Your task to perform on an android device: Open location settings Image 0: 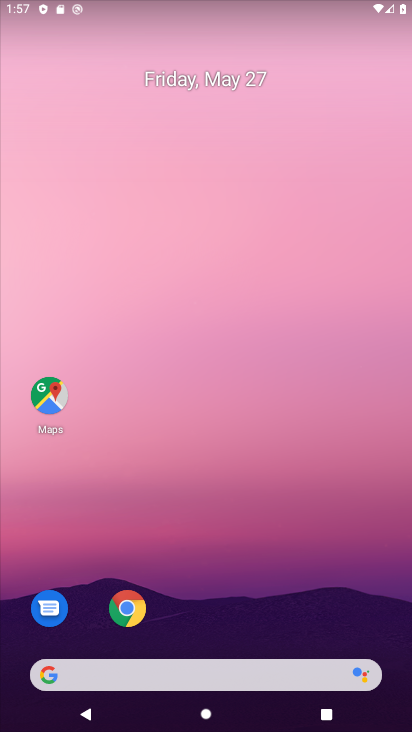
Step 0: drag from (259, 624) to (203, 150)
Your task to perform on an android device: Open location settings Image 1: 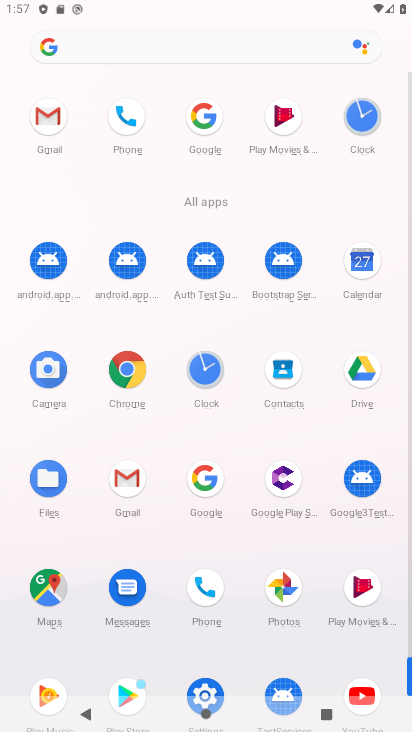
Step 1: click (205, 690)
Your task to perform on an android device: Open location settings Image 2: 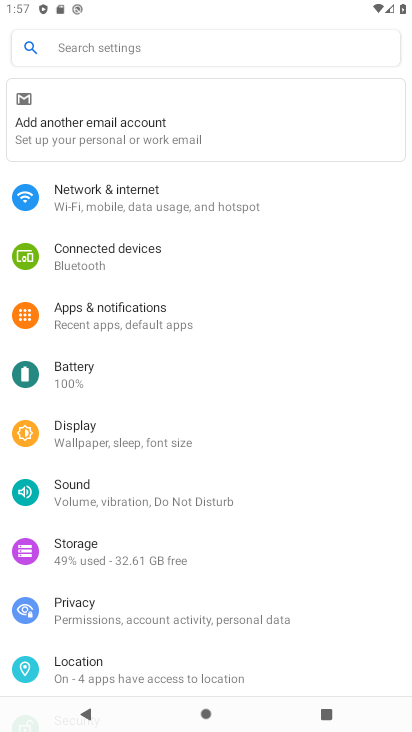
Step 2: click (179, 650)
Your task to perform on an android device: Open location settings Image 3: 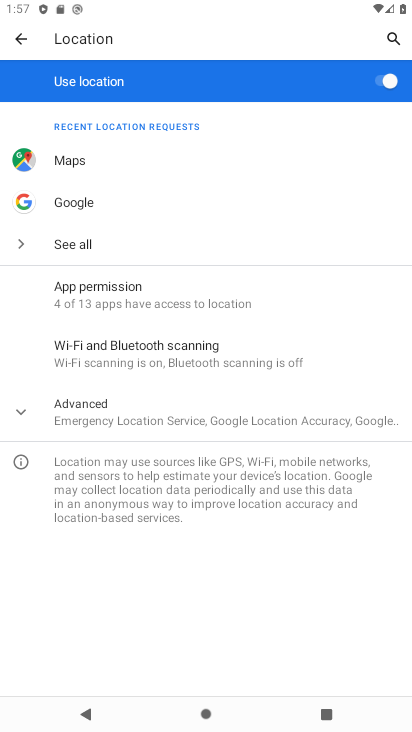
Step 3: task complete